Your task to perform on an android device: star an email in the gmail app Image 0: 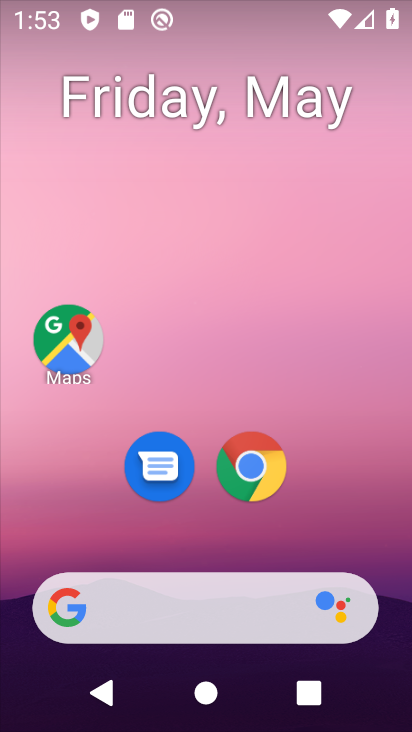
Step 0: drag from (332, 529) to (337, 79)
Your task to perform on an android device: star an email in the gmail app Image 1: 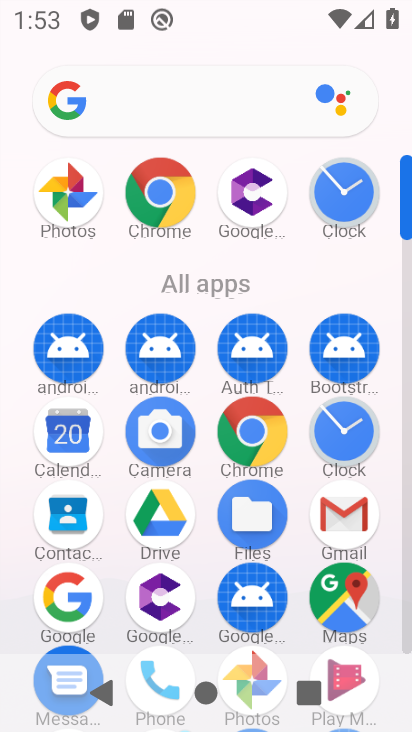
Step 1: drag from (292, 280) to (327, 1)
Your task to perform on an android device: star an email in the gmail app Image 2: 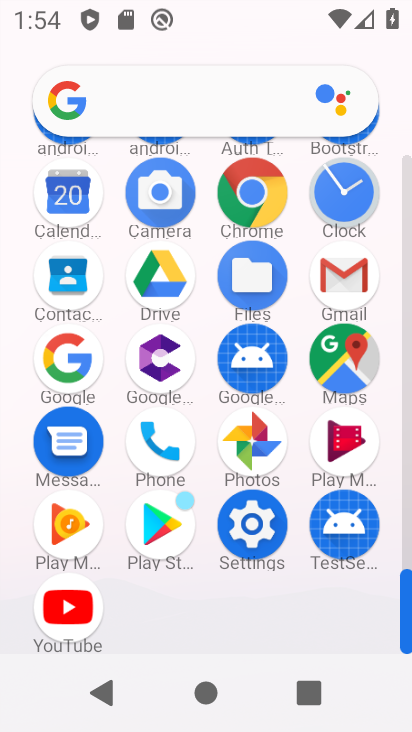
Step 2: click (345, 272)
Your task to perform on an android device: star an email in the gmail app Image 3: 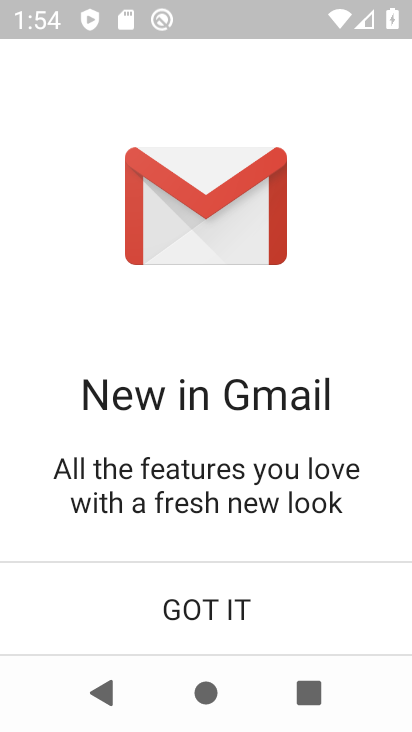
Step 3: click (205, 607)
Your task to perform on an android device: star an email in the gmail app Image 4: 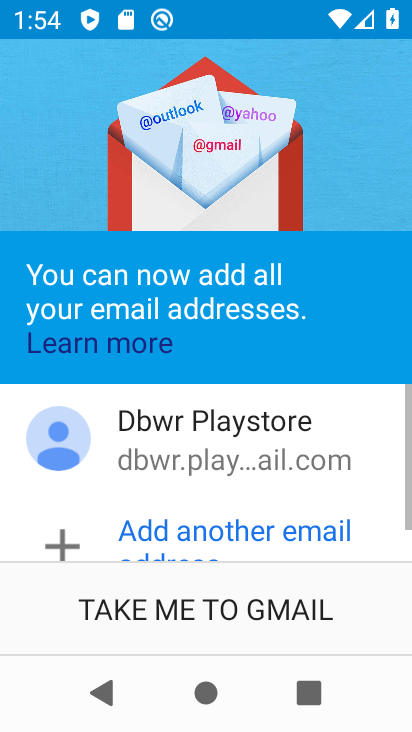
Step 4: click (205, 607)
Your task to perform on an android device: star an email in the gmail app Image 5: 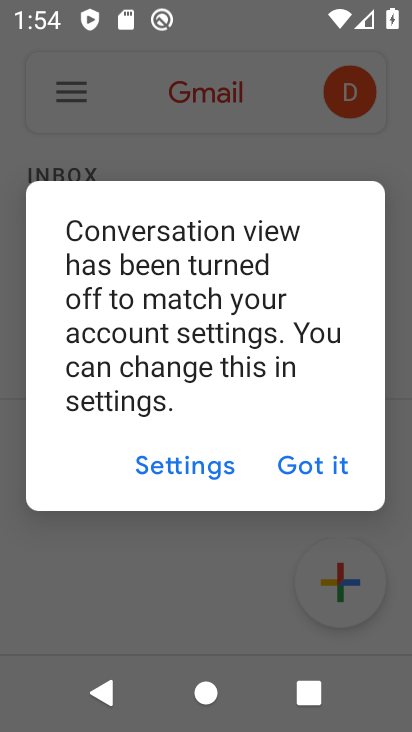
Step 5: click (301, 474)
Your task to perform on an android device: star an email in the gmail app Image 6: 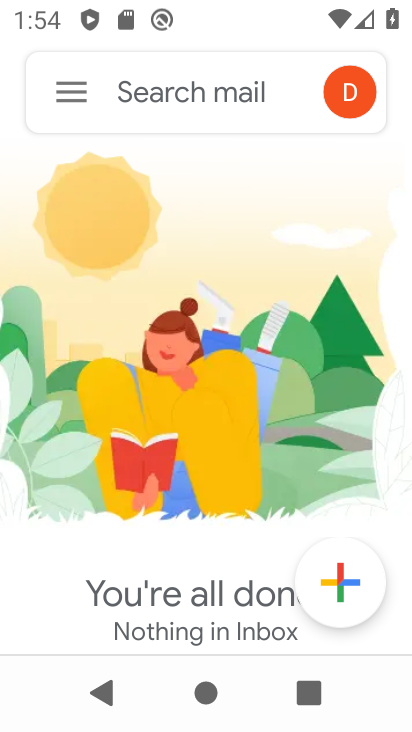
Step 6: task complete